Your task to perform on an android device: open a new tab in the chrome app Image 0: 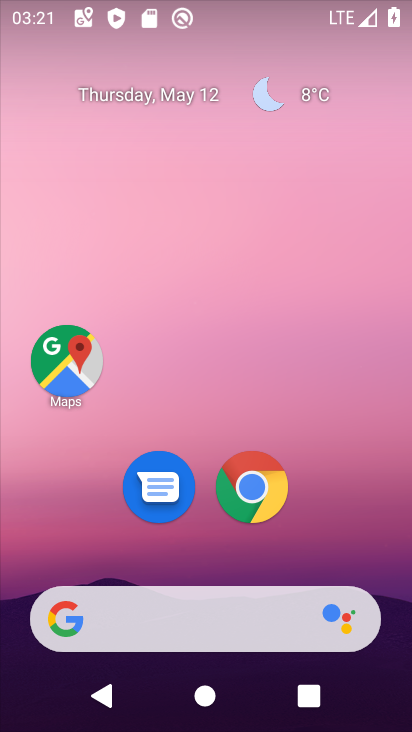
Step 0: click (242, 484)
Your task to perform on an android device: open a new tab in the chrome app Image 1: 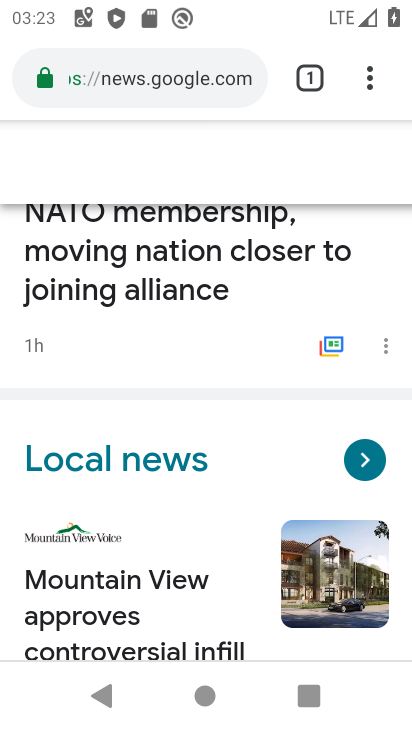
Step 1: task complete